Your task to perform on an android device: Go to location settings Image 0: 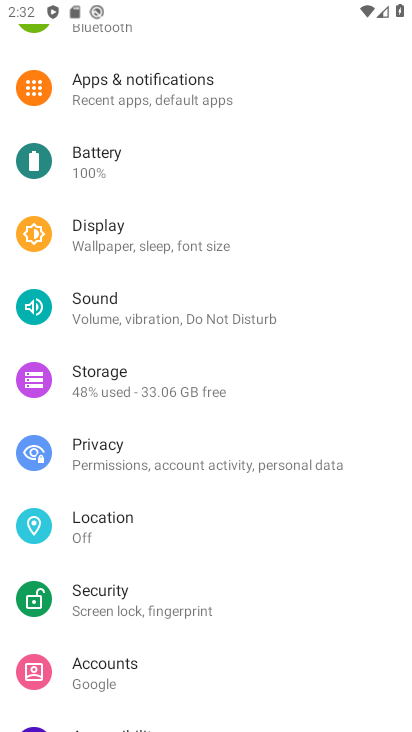
Step 0: press home button
Your task to perform on an android device: Go to location settings Image 1: 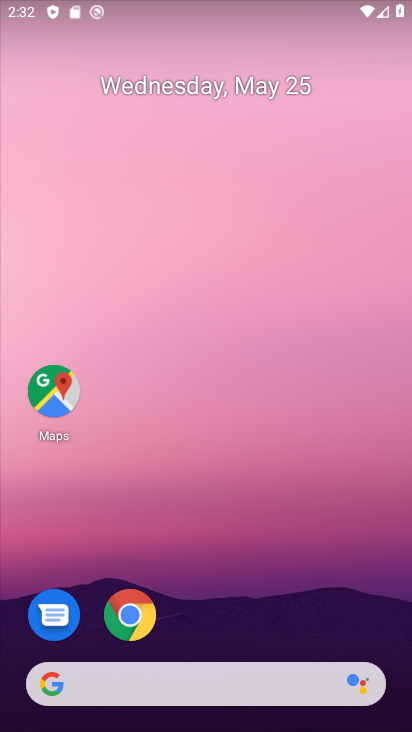
Step 1: drag from (237, 646) to (207, 220)
Your task to perform on an android device: Go to location settings Image 2: 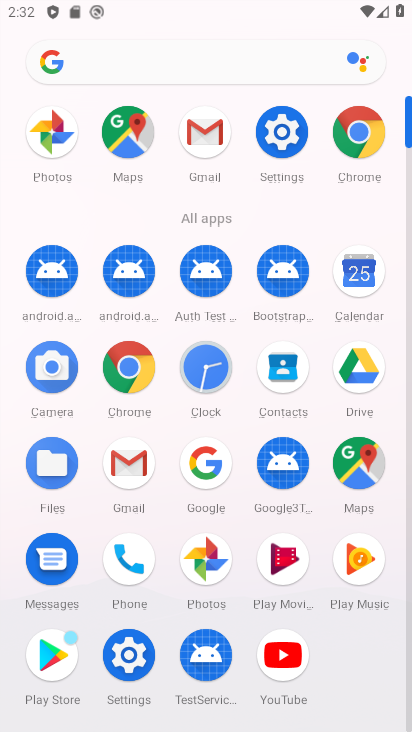
Step 2: click (297, 130)
Your task to perform on an android device: Go to location settings Image 3: 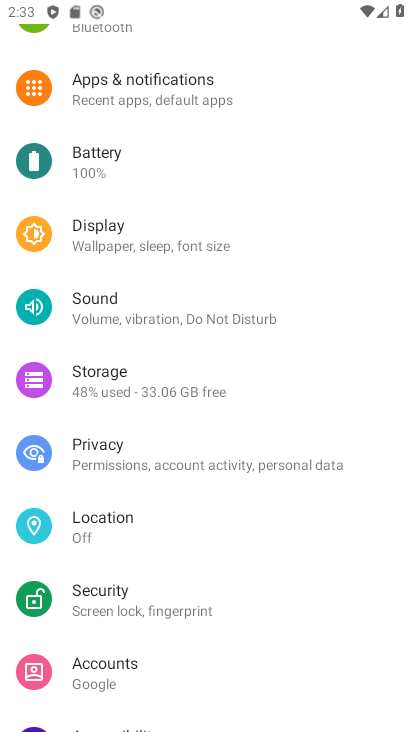
Step 3: click (214, 526)
Your task to perform on an android device: Go to location settings Image 4: 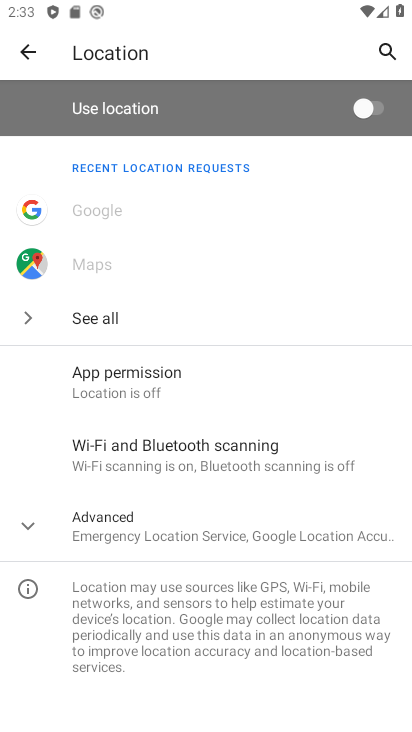
Step 4: task complete